Your task to perform on an android device: open app "WhatsApp Messenger" (install if not already installed) Image 0: 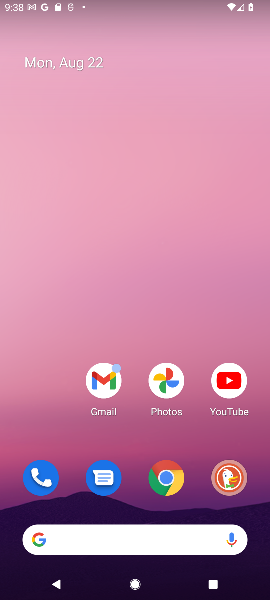
Step 0: drag from (140, 499) to (151, 67)
Your task to perform on an android device: open app "WhatsApp Messenger" (install if not already installed) Image 1: 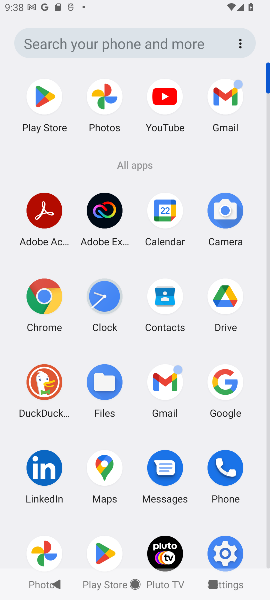
Step 1: click (47, 106)
Your task to perform on an android device: open app "WhatsApp Messenger" (install if not already installed) Image 2: 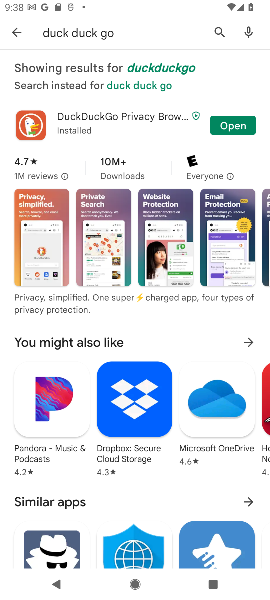
Step 2: click (206, 42)
Your task to perform on an android device: open app "WhatsApp Messenger" (install if not already installed) Image 3: 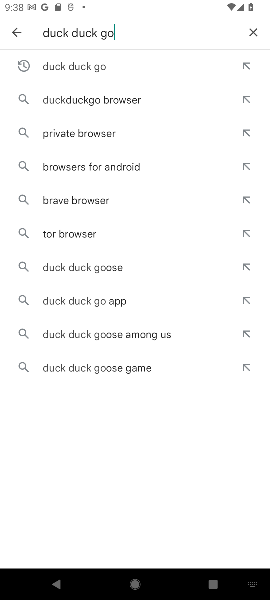
Step 3: click (249, 35)
Your task to perform on an android device: open app "WhatsApp Messenger" (install if not already installed) Image 4: 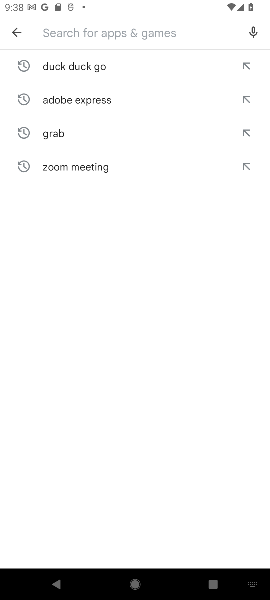
Step 4: type "whatsapp"
Your task to perform on an android device: open app "WhatsApp Messenger" (install if not already installed) Image 5: 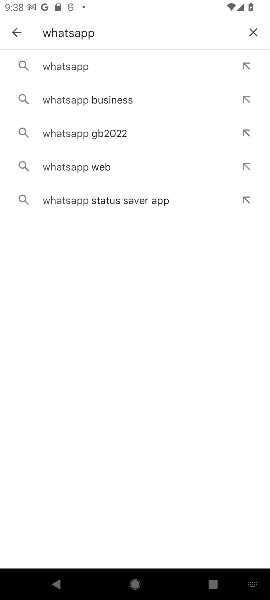
Step 5: click (115, 74)
Your task to perform on an android device: open app "WhatsApp Messenger" (install if not already installed) Image 6: 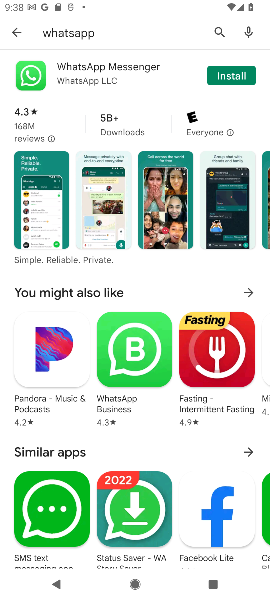
Step 6: click (224, 84)
Your task to perform on an android device: open app "WhatsApp Messenger" (install if not already installed) Image 7: 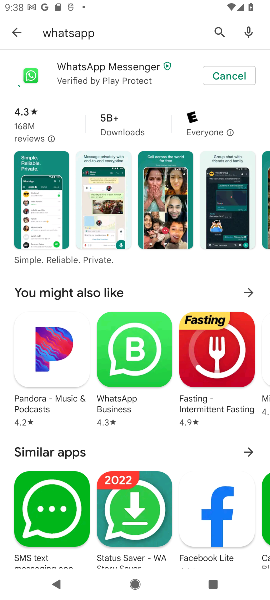
Step 7: task complete